Your task to perform on an android device: open device folders in google photos Image 0: 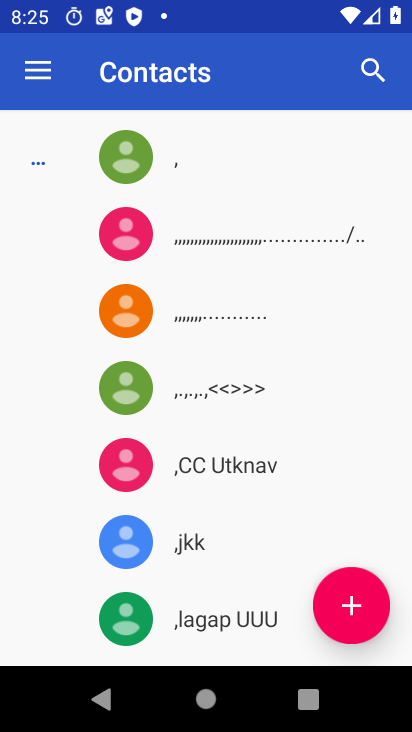
Step 0: press home button
Your task to perform on an android device: open device folders in google photos Image 1: 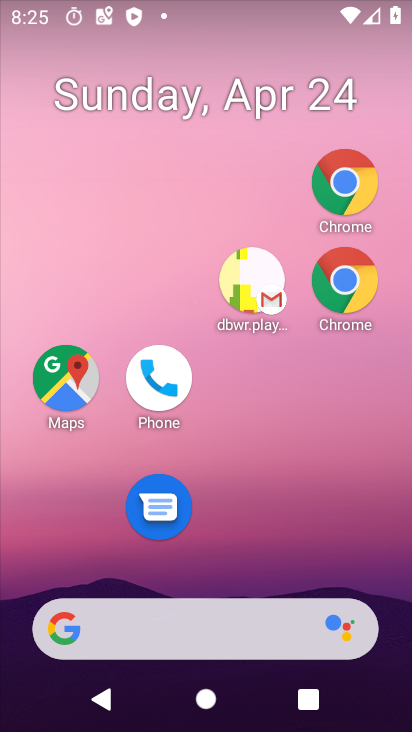
Step 1: drag from (244, 705) to (190, 113)
Your task to perform on an android device: open device folders in google photos Image 2: 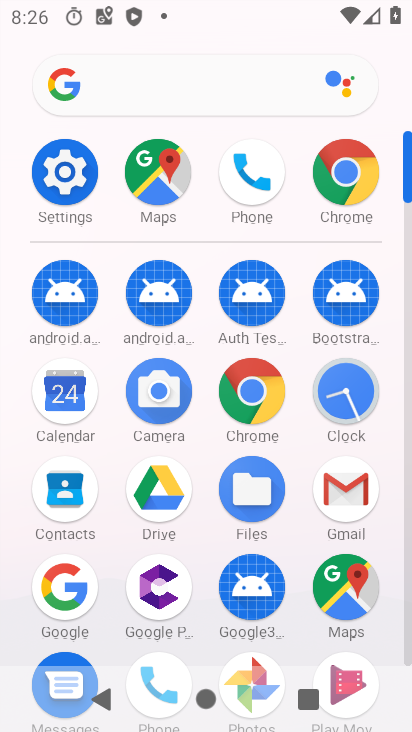
Step 2: click (243, 692)
Your task to perform on an android device: open device folders in google photos Image 3: 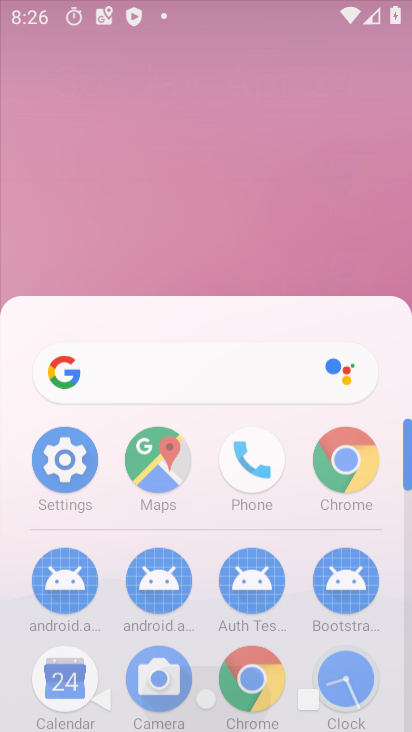
Step 3: drag from (257, 662) to (183, 163)
Your task to perform on an android device: open device folders in google photos Image 4: 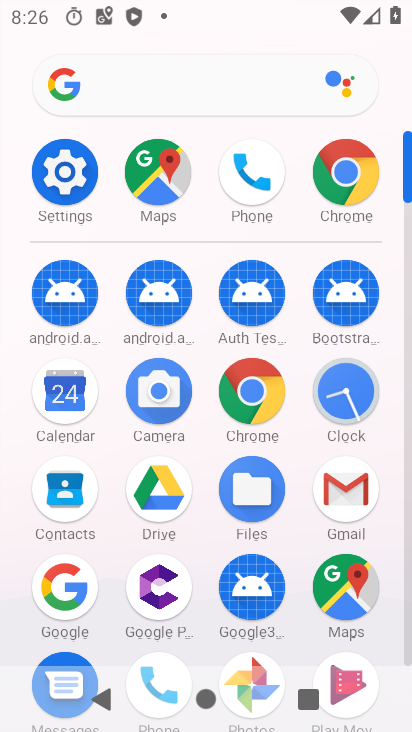
Step 4: click (257, 660)
Your task to perform on an android device: open device folders in google photos Image 5: 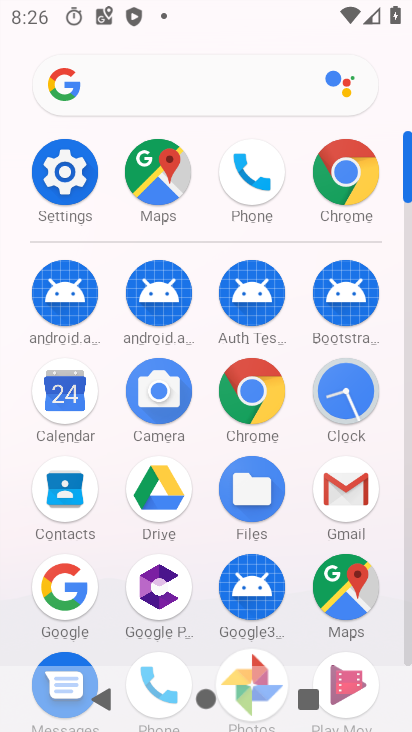
Step 5: click (257, 660)
Your task to perform on an android device: open device folders in google photos Image 6: 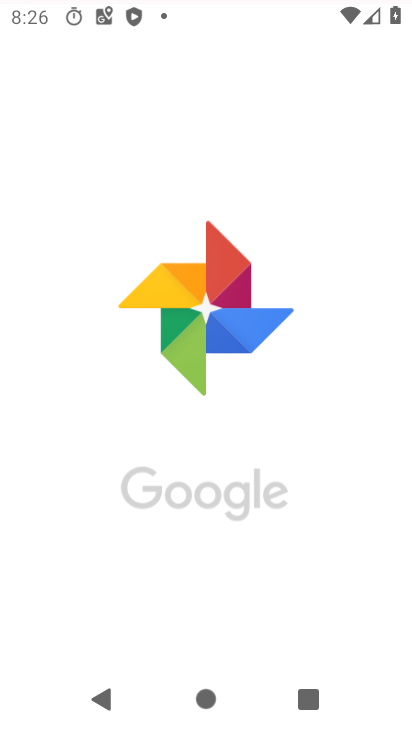
Step 6: drag from (202, 535) to (233, 5)
Your task to perform on an android device: open device folders in google photos Image 7: 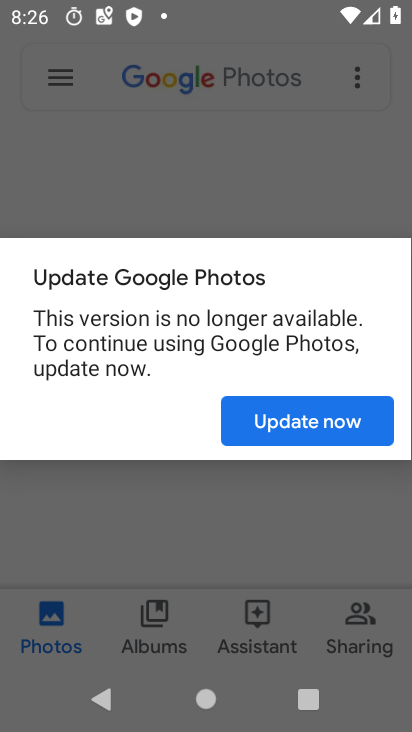
Step 7: click (233, 193)
Your task to perform on an android device: open device folders in google photos Image 8: 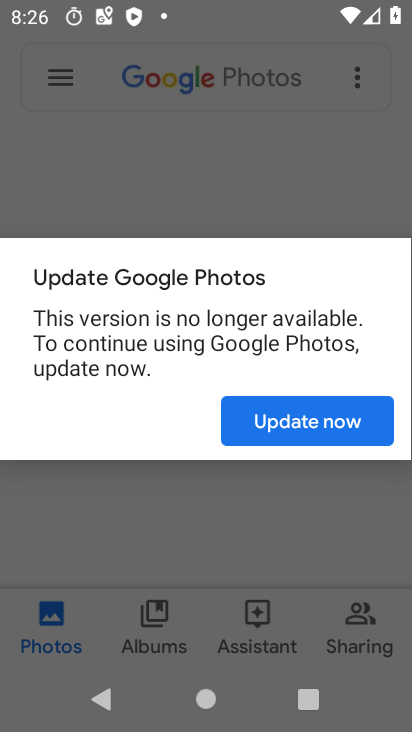
Step 8: click (233, 193)
Your task to perform on an android device: open device folders in google photos Image 9: 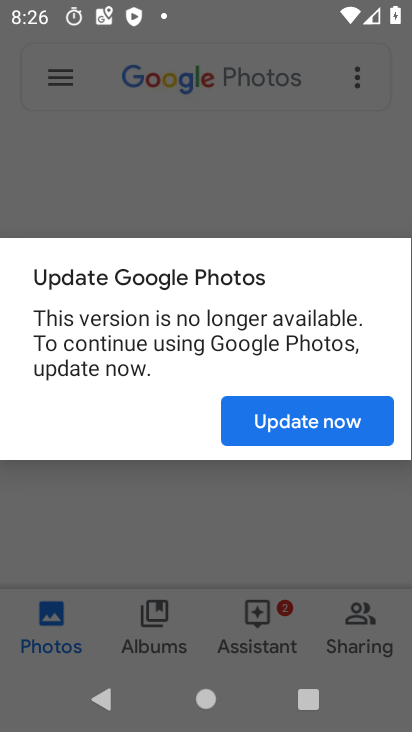
Step 9: click (323, 424)
Your task to perform on an android device: open device folders in google photos Image 10: 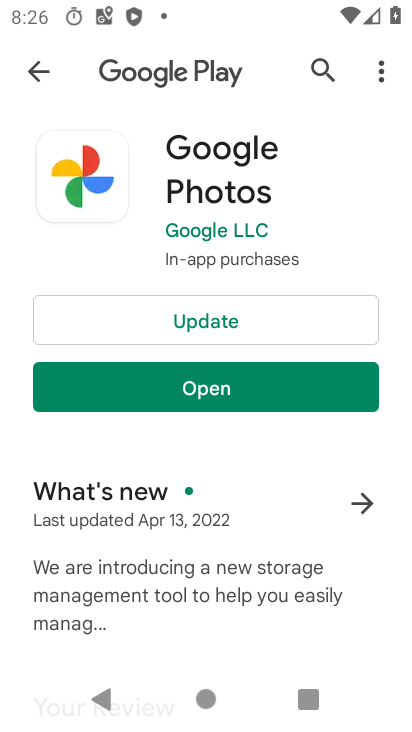
Step 10: click (209, 320)
Your task to perform on an android device: open device folders in google photos Image 11: 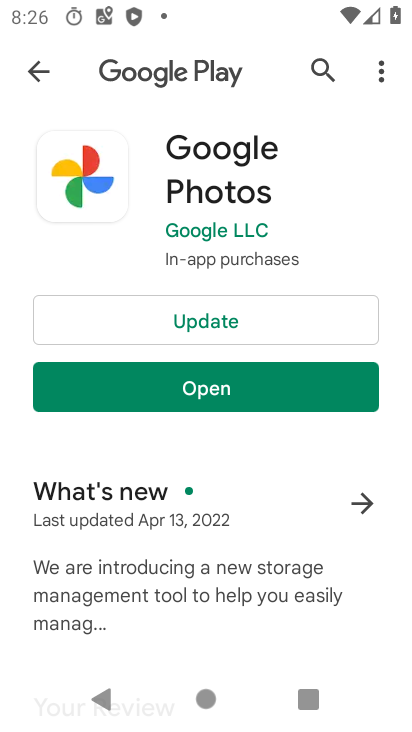
Step 11: click (209, 320)
Your task to perform on an android device: open device folders in google photos Image 12: 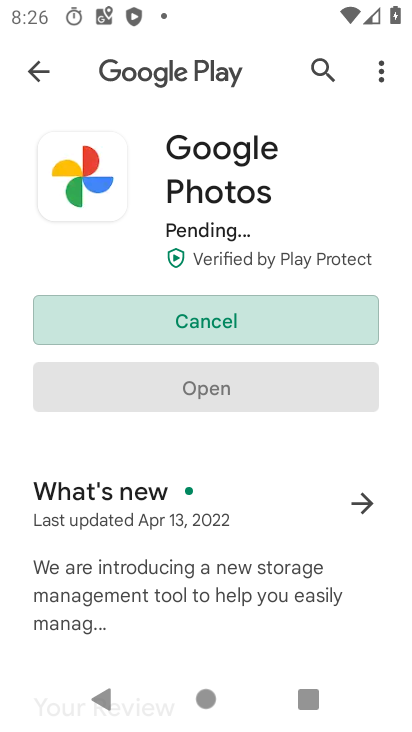
Step 12: click (209, 319)
Your task to perform on an android device: open device folders in google photos Image 13: 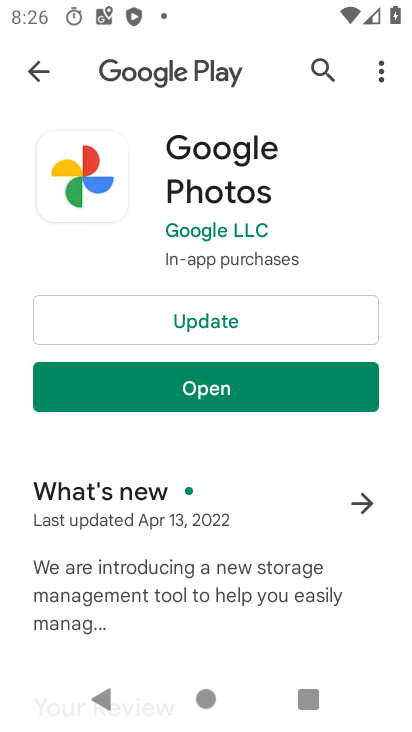
Step 13: click (199, 320)
Your task to perform on an android device: open device folders in google photos Image 14: 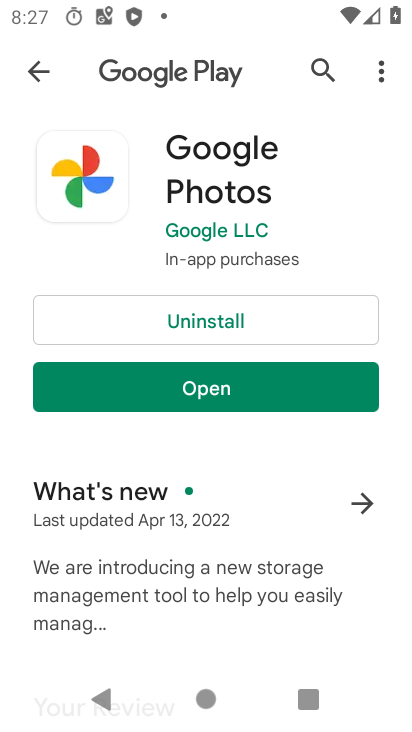
Step 14: click (219, 388)
Your task to perform on an android device: open device folders in google photos Image 15: 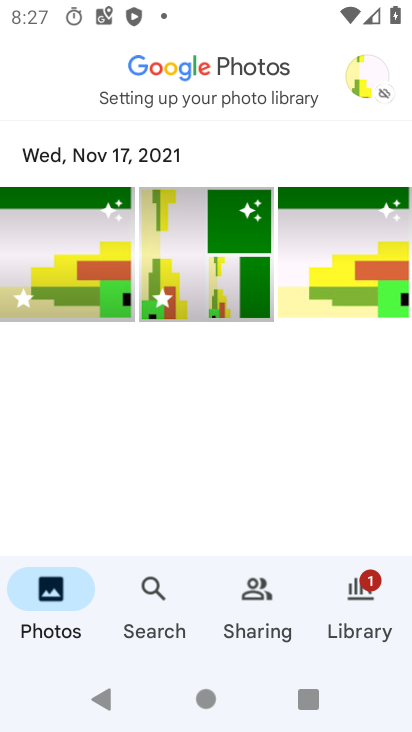
Step 15: press back button
Your task to perform on an android device: open device folders in google photos Image 16: 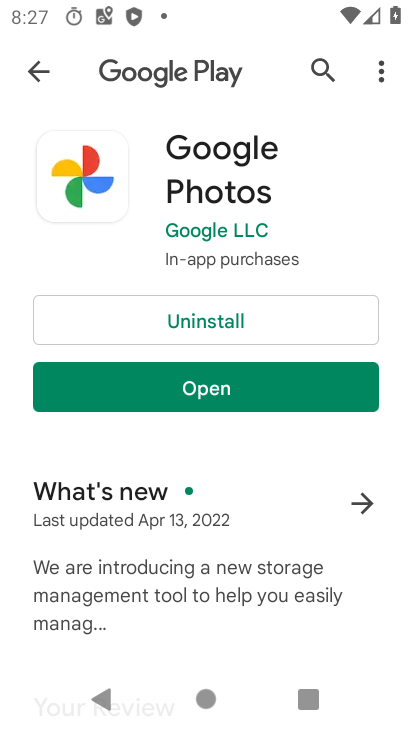
Step 16: click (240, 386)
Your task to perform on an android device: open device folders in google photos Image 17: 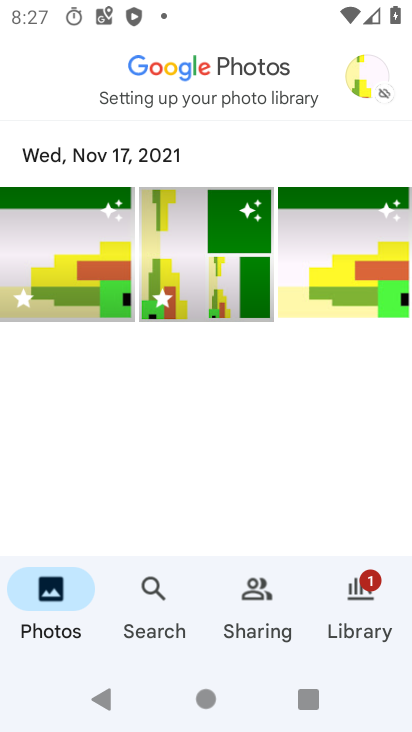
Step 17: click (358, 90)
Your task to perform on an android device: open device folders in google photos Image 18: 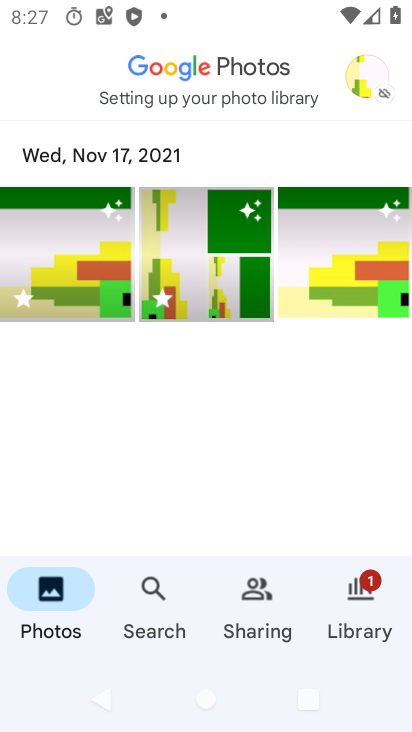
Step 18: click (360, 90)
Your task to perform on an android device: open device folders in google photos Image 19: 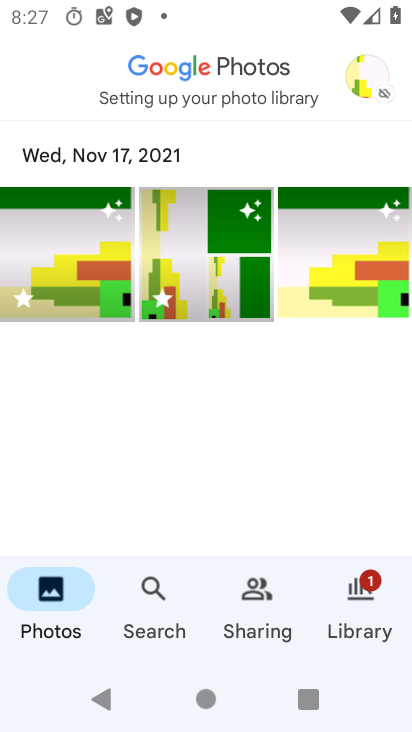
Step 19: click (361, 92)
Your task to perform on an android device: open device folders in google photos Image 20: 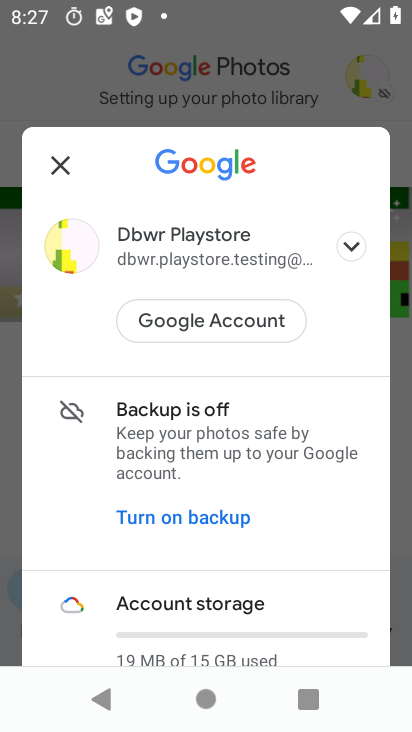
Step 20: drag from (217, 517) to (122, 28)
Your task to perform on an android device: open device folders in google photos Image 21: 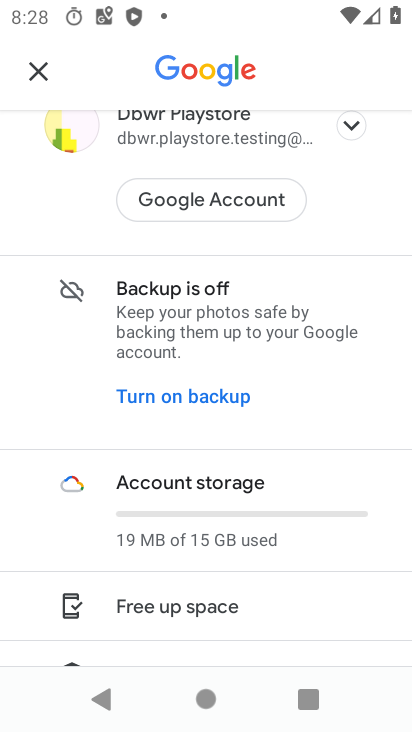
Step 21: drag from (201, 476) to (154, 125)
Your task to perform on an android device: open device folders in google photos Image 22: 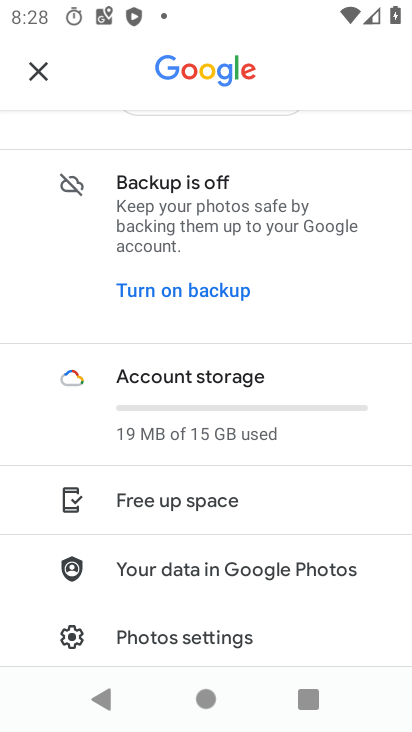
Step 22: drag from (158, 548) to (141, 199)
Your task to perform on an android device: open device folders in google photos Image 23: 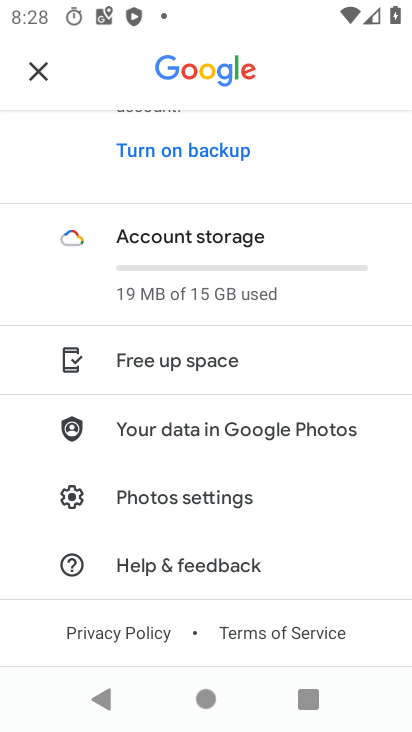
Step 23: drag from (208, 509) to (172, 22)
Your task to perform on an android device: open device folders in google photos Image 24: 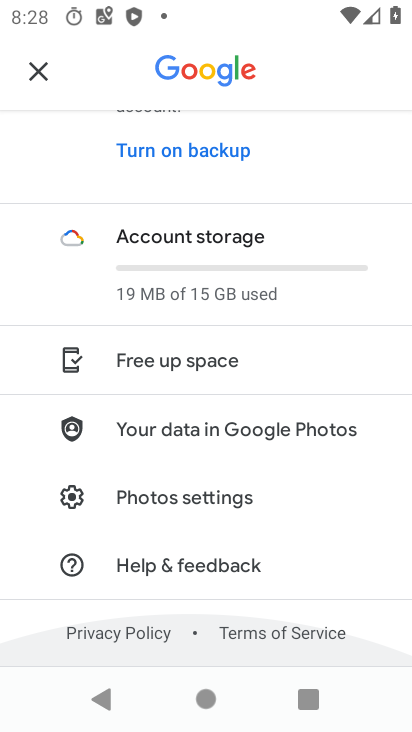
Step 24: drag from (191, 493) to (178, 21)
Your task to perform on an android device: open device folders in google photos Image 25: 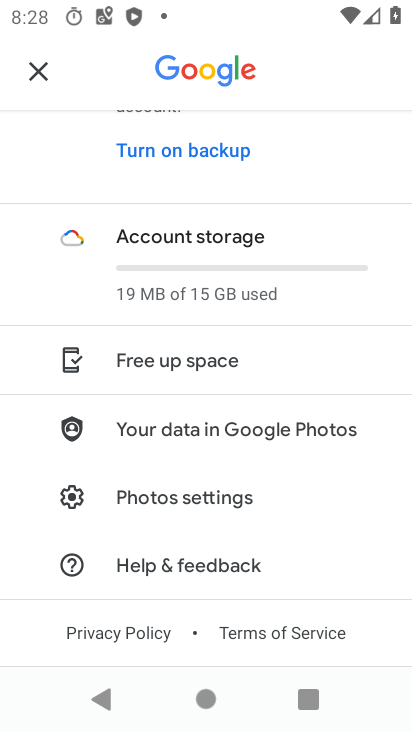
Step 25: drag from (208, 153) to (231, 643)
Your task to perform on an android device: open device folders in google photos Image 26: 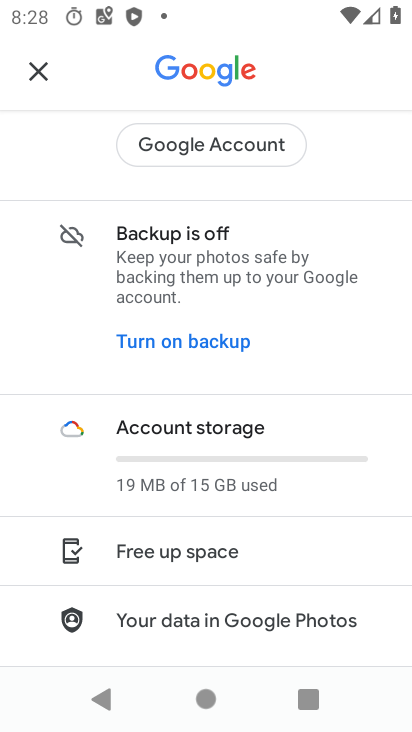
Step 26: click (195, 617)
Your task to perform on an android device: open device folders in google photos Image 27: 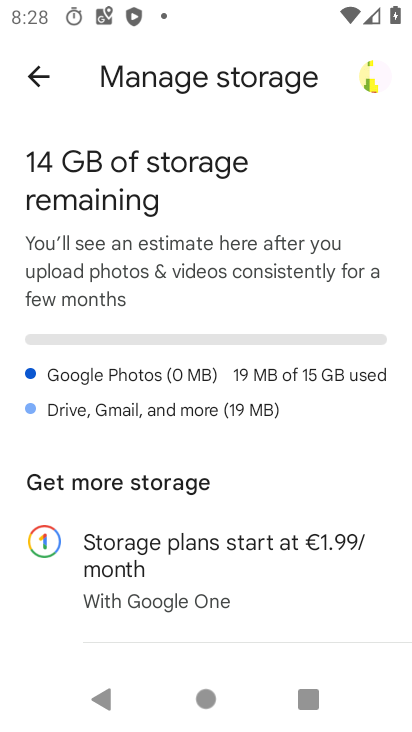
Step 27: task complete